Your task to perform on an android device: Open Amazon Image 0: 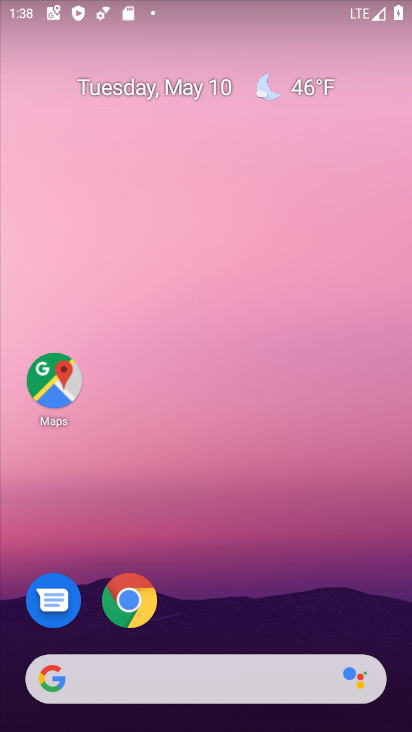
Step 0: click (124, 599)
Your task to perform on an android device: Open Amazon Image 1: 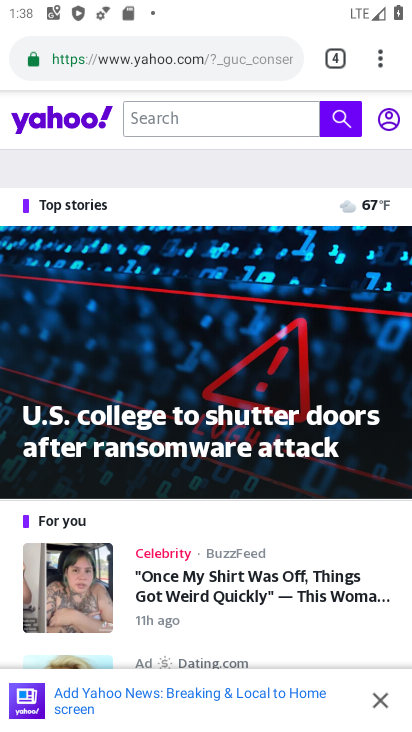
Step 1: drag from (380, 59) to (248, 128)
Your task to perform on an android device: Open Amazon Image 2: 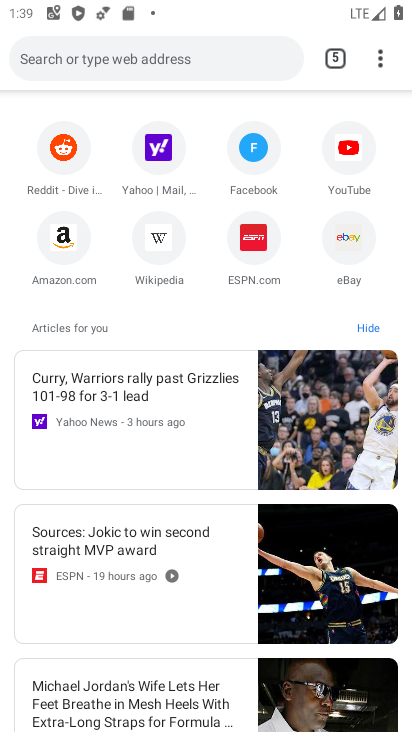
Step 2: click (57, 243)
Your task to perform on an android device: Open Amazon Image 3: 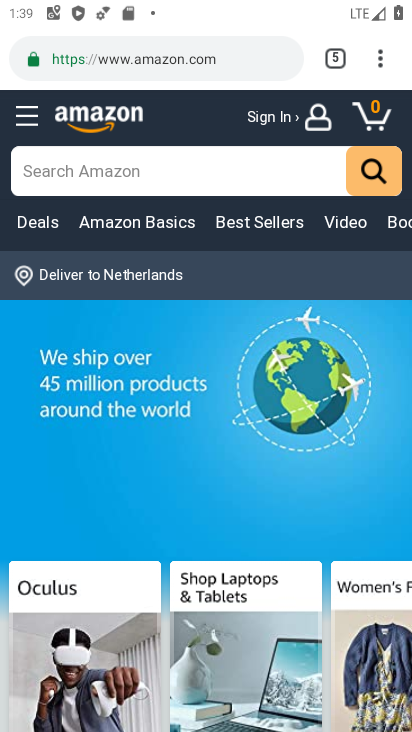
Step 3: task complete